Your task to perform on an android device: open chrome and create a bookmark for the current page Image 0: 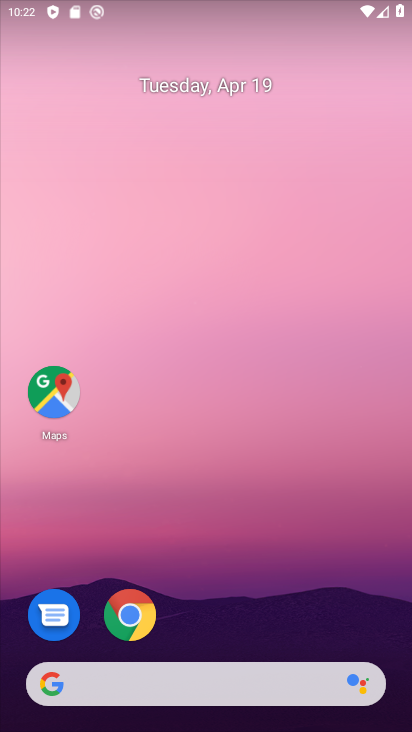
Step 0: click (124, 624)
Your task to perform on an android device: open chrome and create a bookmark for the current page Image 1: 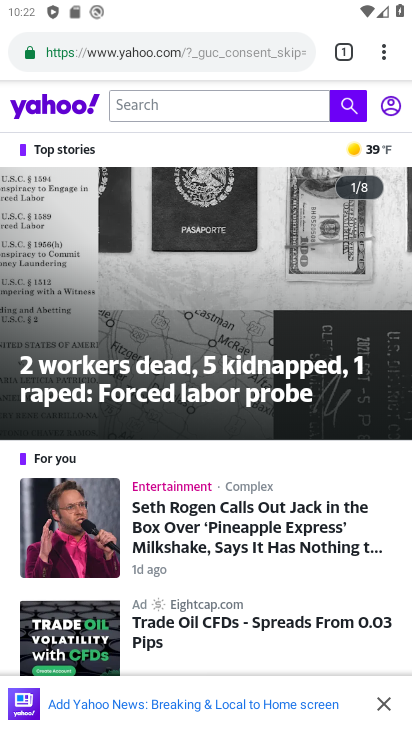
Step 1: click (380, 52)
Your task to perform on an android device: open chrome and create a bookmark for the current page Image 2: 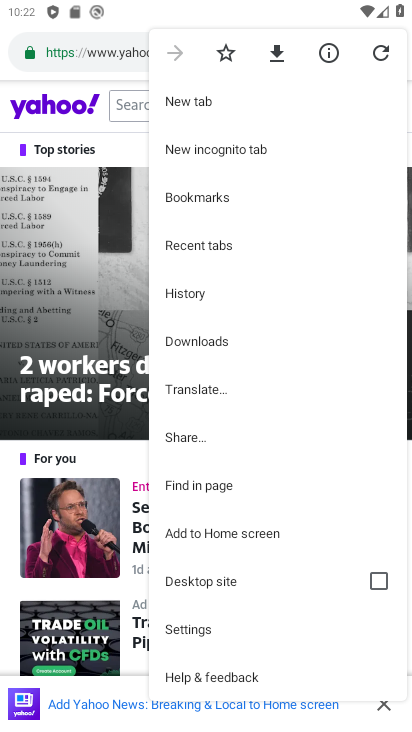
Step 2: click (96, 83)
Your task to perform on an android device: open chrome and create a bookmark for the current page Image 3: 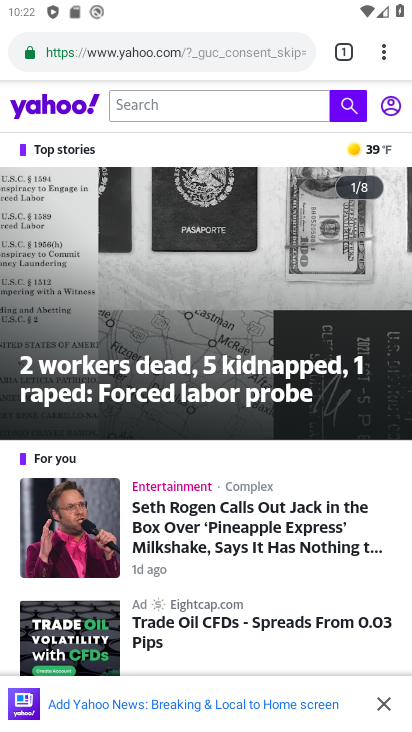
Step 3: click (236, 51)
Your task to perform on an android device: open chrome and create a bookmark for the current page Image 4: 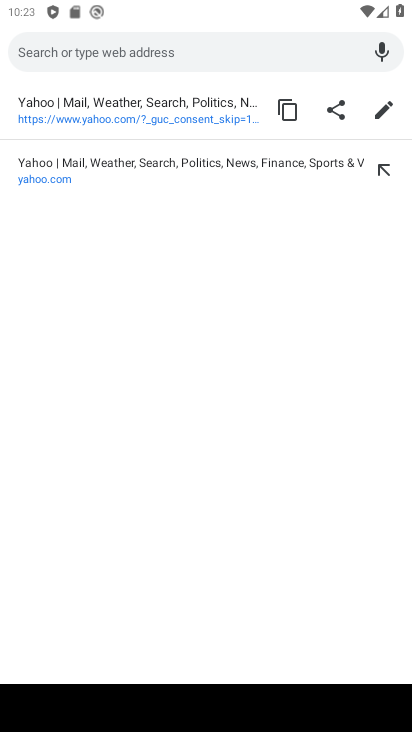
Step 4: type "oyo.com"
Your task to perform on an android device: open chrome and create a bookmark for the current page Image 5: 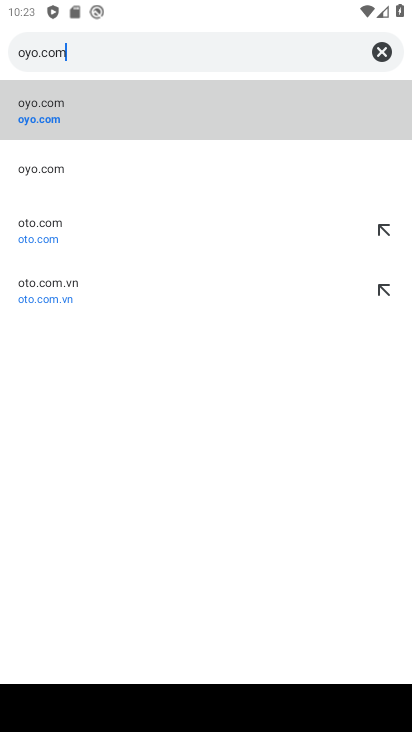
Step 5: click (256, 119)
Your task to perform on an android device: open chrome and create a bookmark for the current page Image 6: 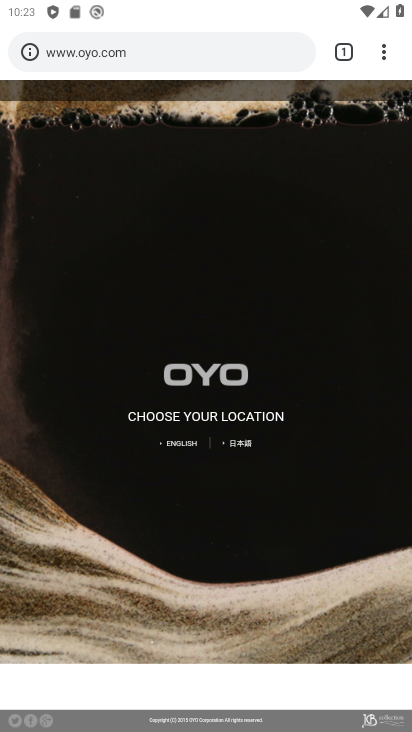
Step 6: click (378, 50)
Your task to perform on an android device: open chrome and create a bookmark for the current page Image 7: 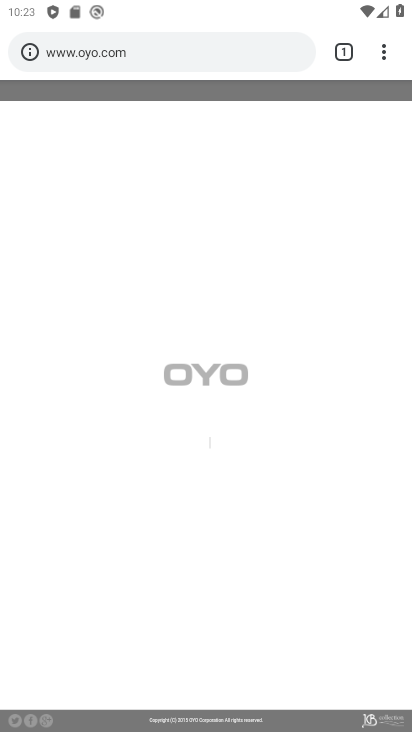
Step 7: click (379, 51)
Your task to perform on an android device: open chrome and create a bookmark for the current page Image 8: 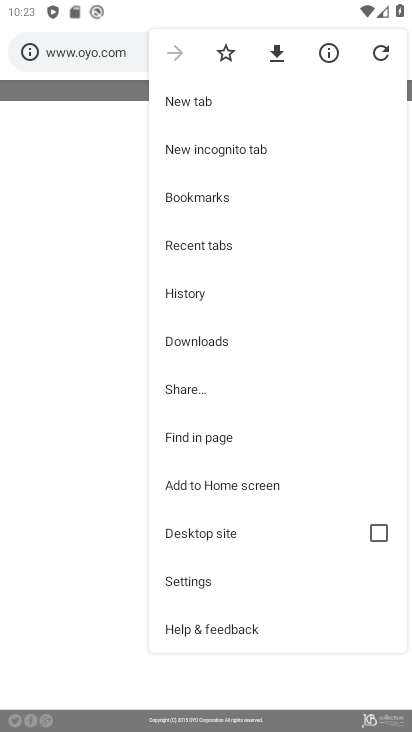
Step 8: click (224, 52)
Your task to perform on an android device: open chrome and create a bookmark for the current page Image 9: 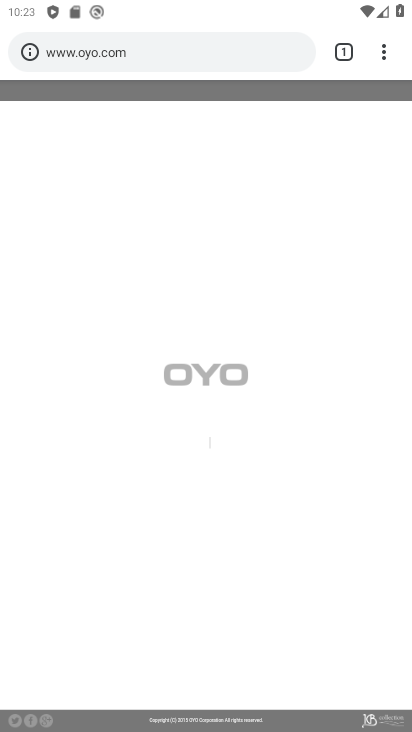
Step 9: task complete